Your task to perform on an android device: What is the capital of England? Image 0: 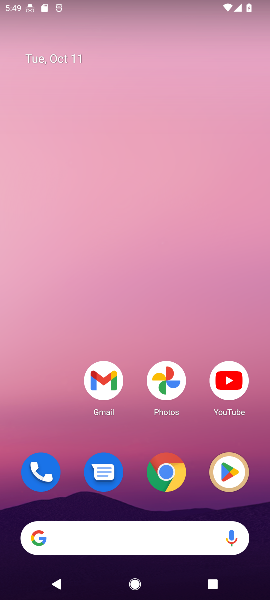
Step 0: click (157, 485)
Your task to perform on an android device: What is the capital of England? Image 1: 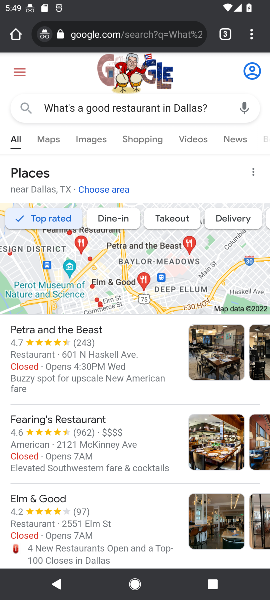
Step 1: click (137, 26)
Your task to perform on an android device: What is the capital of England? Image 2: 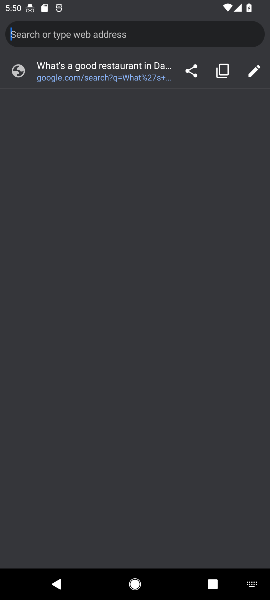
Step 2: type "What is the capital of England?"
Your task to perform on an android device: What is the capital of England? Image 3: 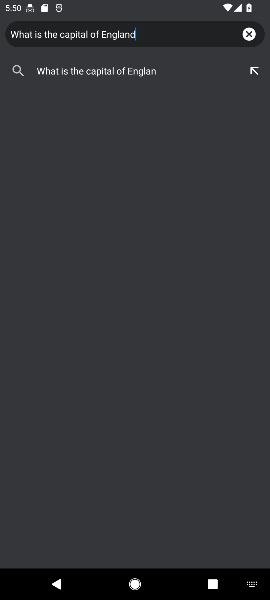
Step 3: type ""
Your task to perform on an android device: What is the capital of England? Image 4: 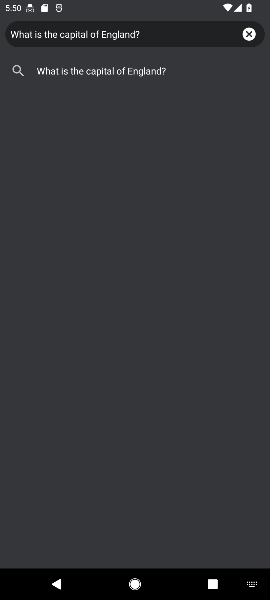
Step 4: click (150, 72)
Your task to perform on an android device: What is the capital of England? Image 5: 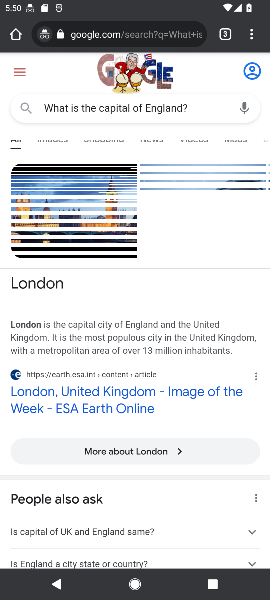
Step 5: task complete